Your task to perform on an android device: set an alarm Image 0: 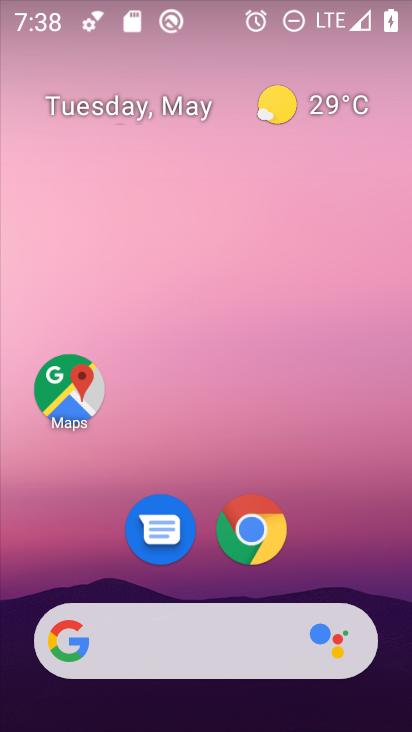
Step 0: drag from (382, 666) to (323, 130)
Your task to perform on an android device: set an alarm Image 1: 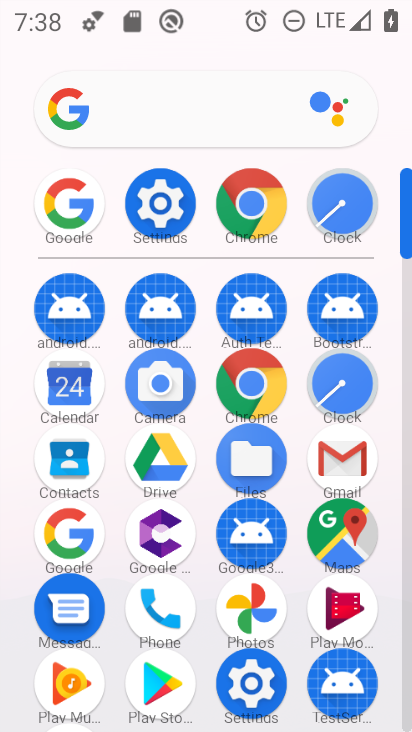
Step 1: click (329, 215)
Your task to perform on an android device: set an alarm Image 2: 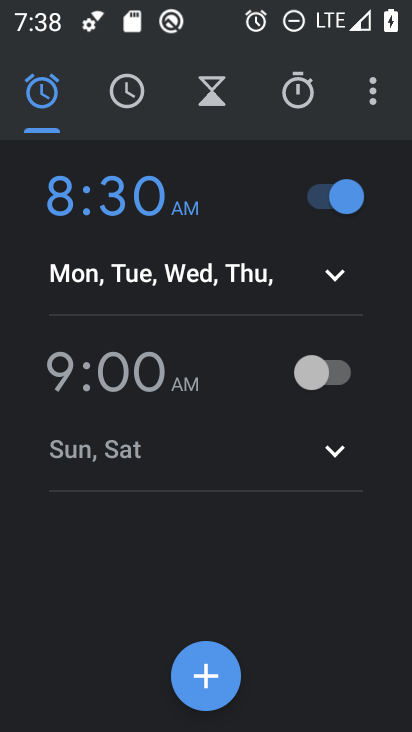
Step 2: click (329, 369)
Your task to perform on an android device: set an alarm Image 3: 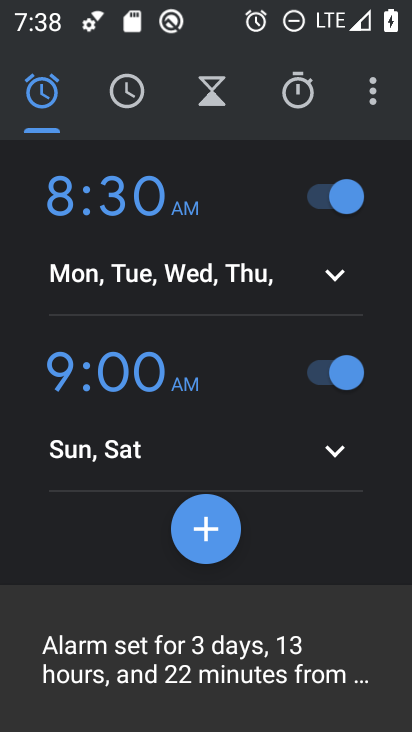
Step 3: task complete